Your task to perform on an android device: Open the web browser Image 0: 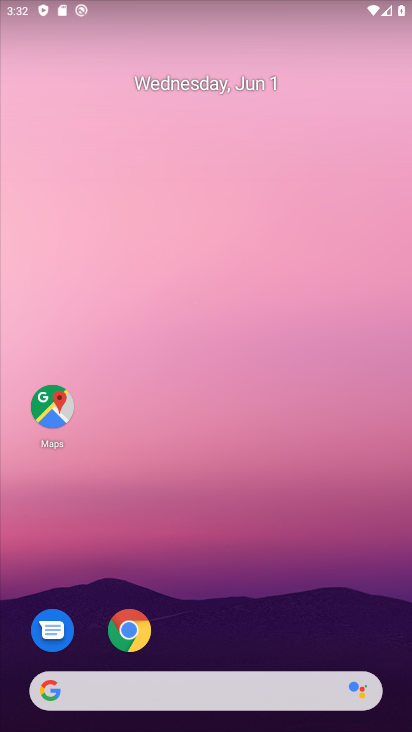
Step 0: drag from (278, 427) to (221, 13)
Your task to perform on an android device: Open the web browser Image 1: 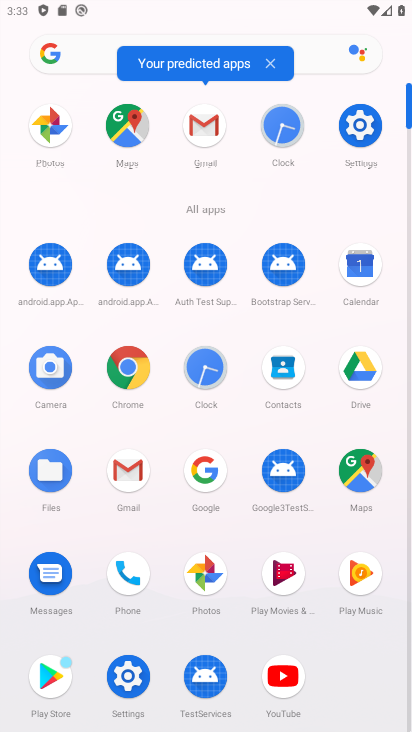
Step 1: drag from (3, 532) to (1, 139)
Your task to perform on an android device: Open the web browser Image 2: 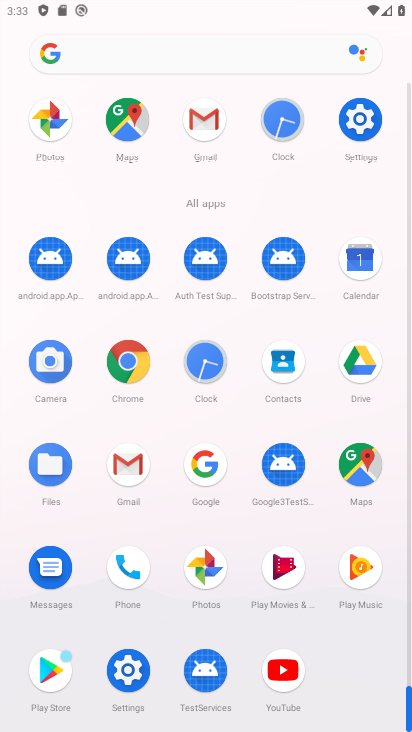
Step 2: click (129, 358)
Your task to perform on an android device: Open the web browser Image 3: 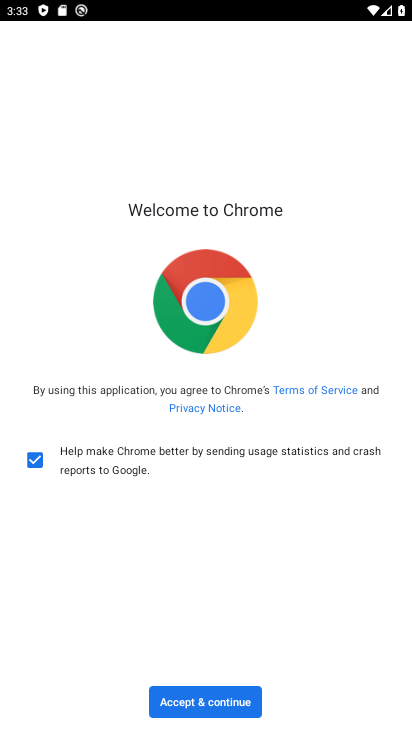
Step 3: click (183, 695)
Your task to perform on an android device: Open the web browser Image 4: 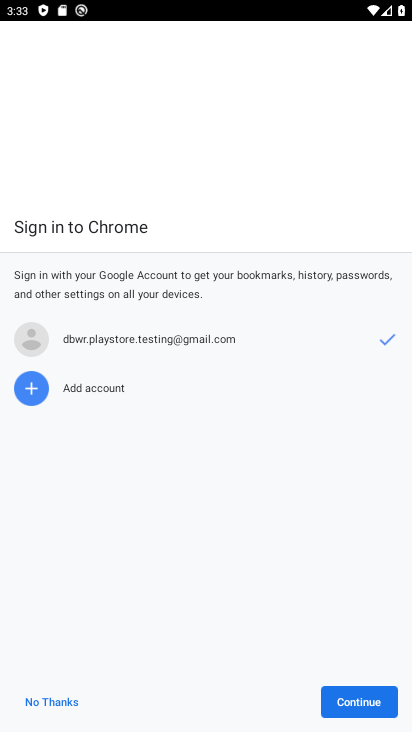
Step 4: click (381, 695)
Your task to perform on an android device: Open the web browser Image 5: 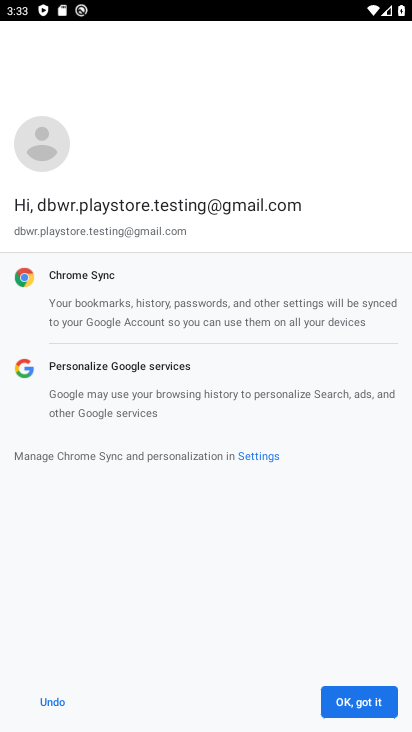
Step 5: click (348, 701)
Your task to perform on an android device: Open the web browser Image 6: 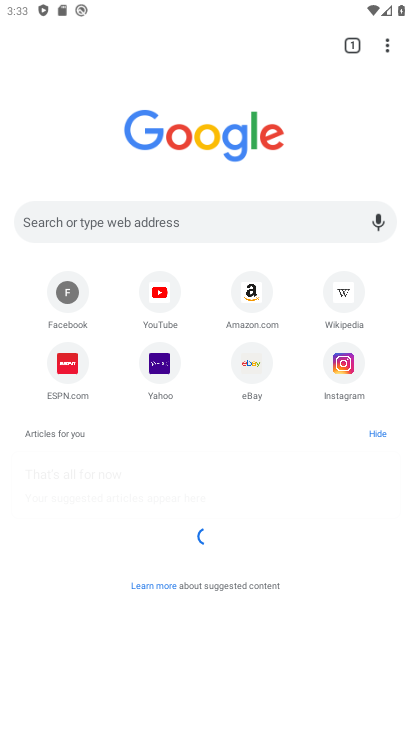
Step 6: task complete